Your task to perform on an android device: set default search engine in the chrome app Image 0: 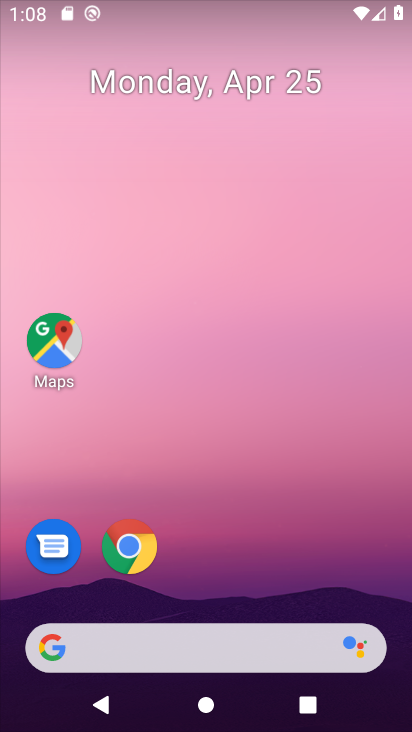
Step 0: drag from (373, 588) to (360, 136)
Your task to perform on an android device: set default search engine in the chrome app Image 1: 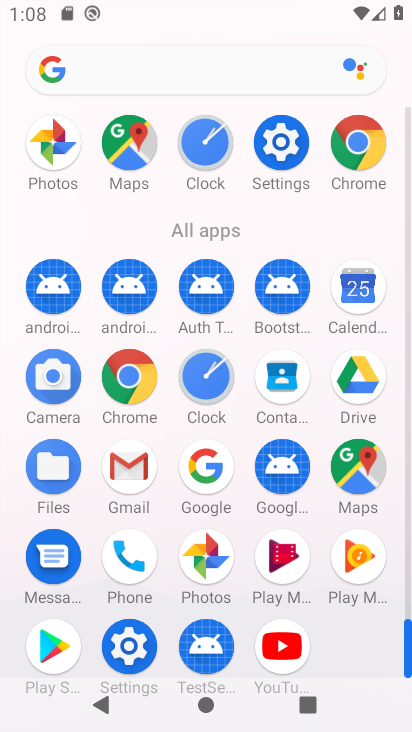
Step 1: click (368, 146)
Your task to perform on an android device: set default search engine in the chrome app Image 2: 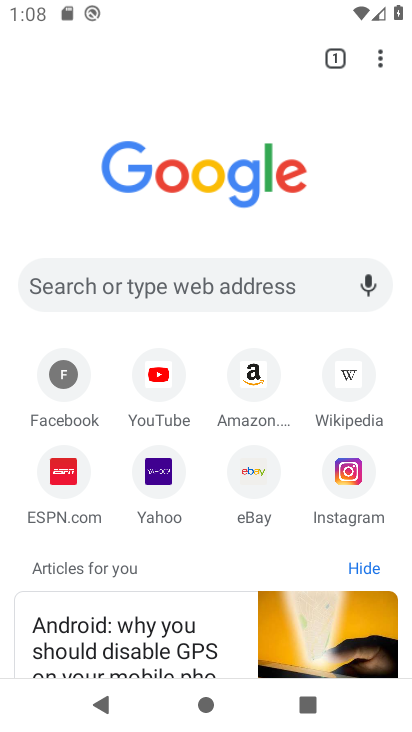
Step 2: click (380, 51)
Your task to perform on an android device: set default search engine in the chrome app Image 3: 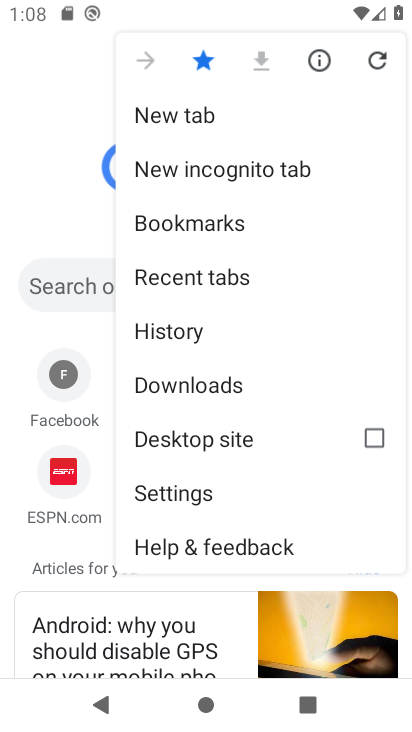
Step 3: click (202, 508)
Your task to perform on an android device: set default search engine in the chrome app Image 4: 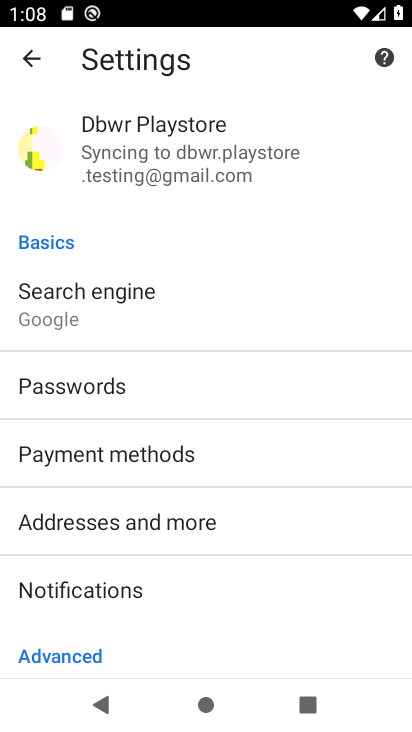
Step 4: drag from (275, 610) to (297, 479)
Your task to perform on an android device: set default search engine in the chrome app Image 5: 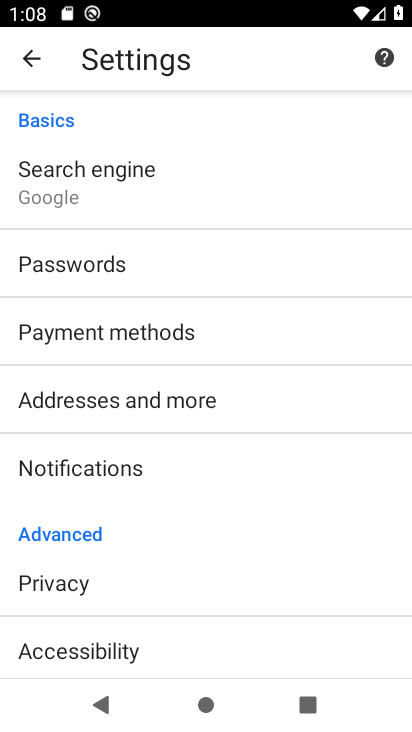
Step 5: drag from (297, 624) to (301, 480)
Your task to perform on an android device: set default search engine in the chrome app Image 6: 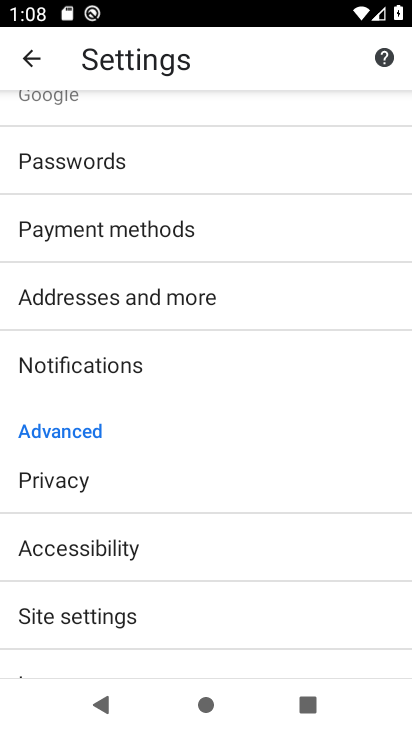
Step 6: drag from (300, 609) to (304, 428)
Your task to perform on an android device: set default search engine in the chrome app Image 7: 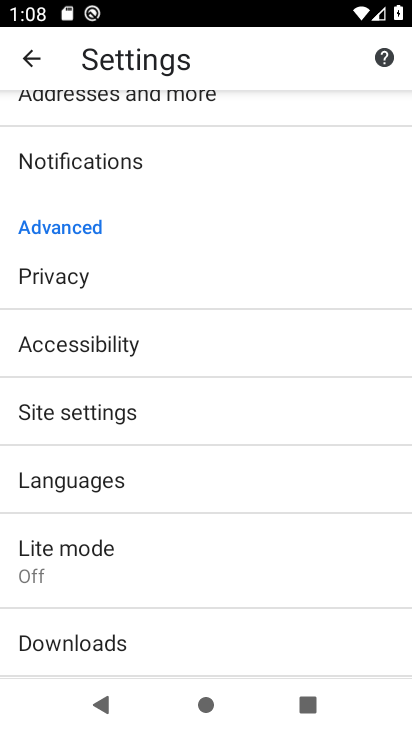
Step 7: drag from (300, 630) to (304, 486)
Your task to perform on an android device: set default search engine in the chrome app Image 8: 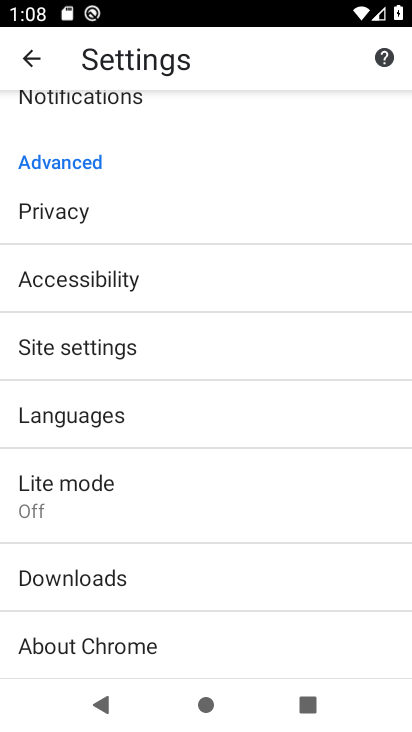
Step 8: drag from (300, 636) to (298, 474)
Your task to perform on an android device: set default search engine in the chrome app Image 9: 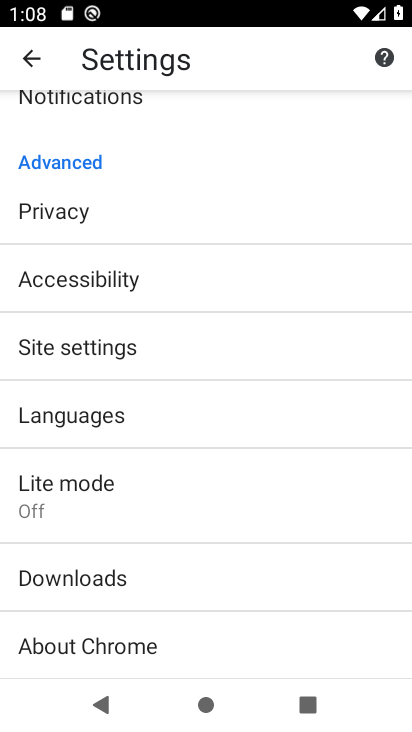
Step 9: drag from (299, 335) to (307, 526)
Your task to perform on an android device: set default search engine in the chrome app Image 10: 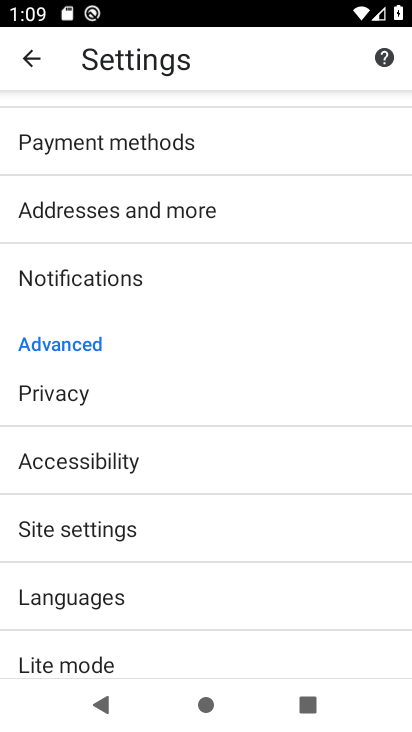
Step 10: drag from (295, 310) to (287, 490)
Your task to perform on an android device: set default search engine in the chrome app Image 11: 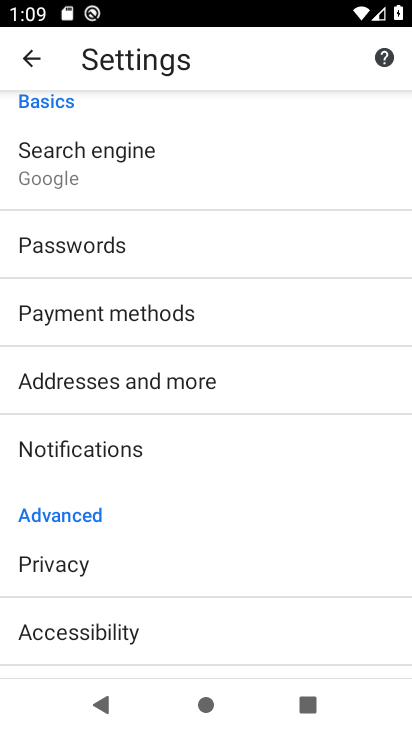
Step 11: drag from (307, 298) to (314, 480)
Your task to perform on an android device: set default search engine in the chrome app Image 12: 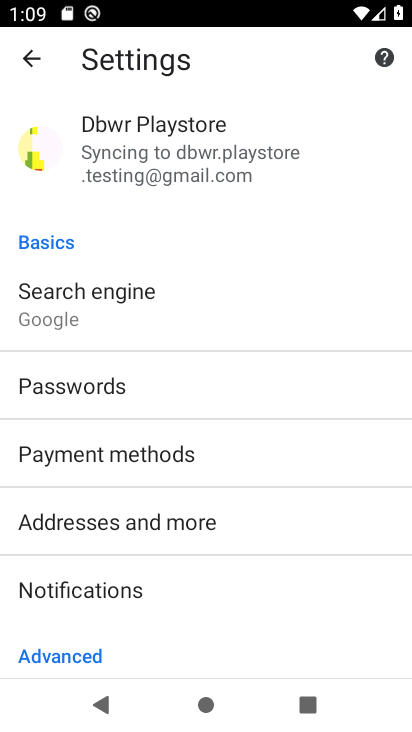
Step 12: click (135, 309)
Your task to perform on an android device: set default search engine in the chrome app Image 13: 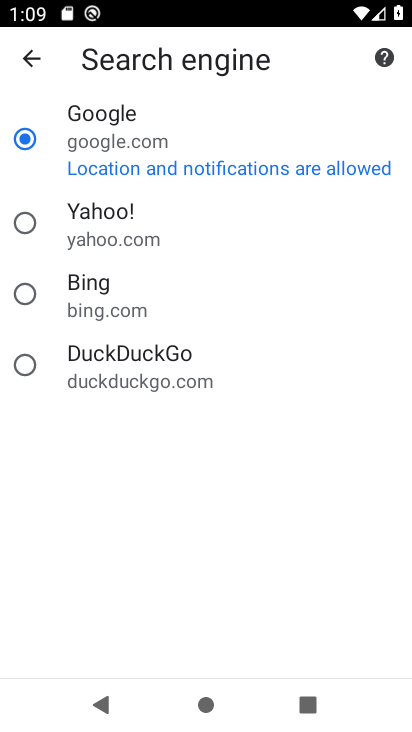
Step 13: click (25, 303)
Your task to perform on an android device: set default search engine in the chrome app Image 14: 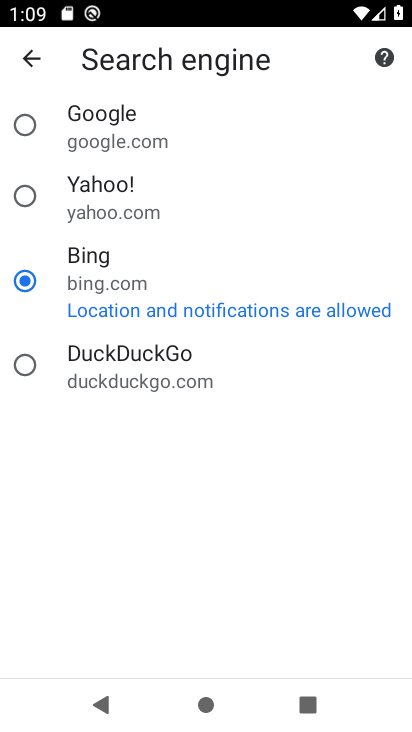
Step 14: task complete